Your task to perform on an android device: toggle notification dots Image 0: 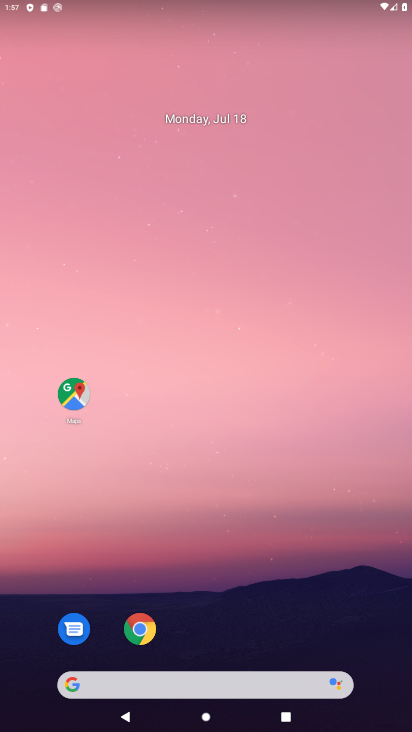
Step 0: drag from (256, 643) to (256, 254)
Your task to perform on an android device: toggle notification dots Image 1: 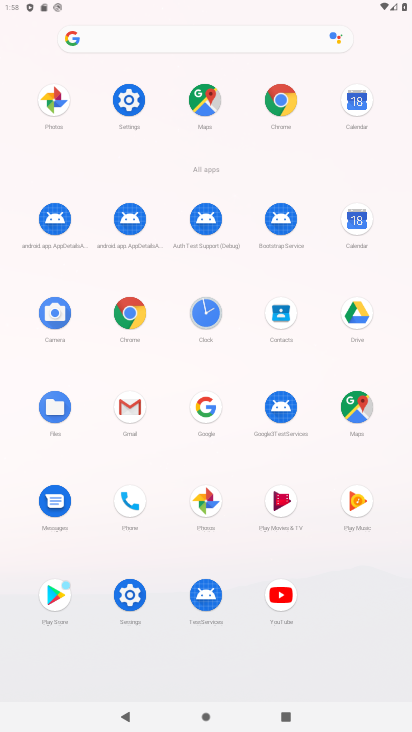
Step 1: click (140, 97)
Your task to perform on an android device: toggle notification dots Image 2: 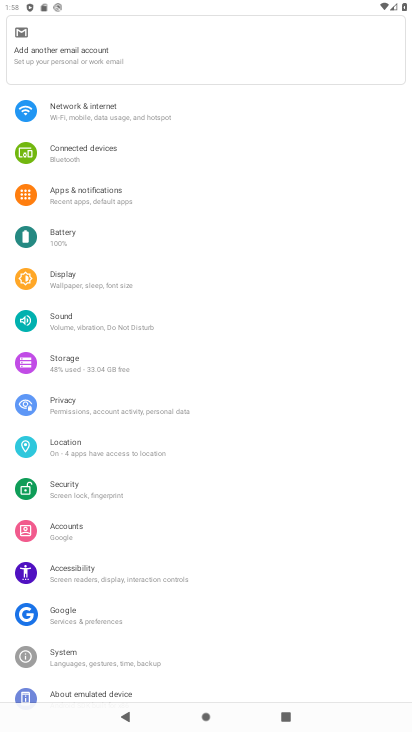
Step 2: click (157, 203)
Your task to perform on an android device: toggle notification dots Image 3: 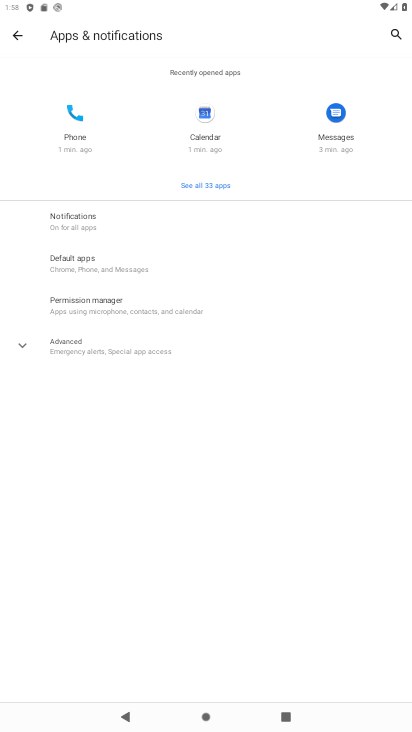
Step 3: click (88, 234)
Your task to perform on an android device: toggle notification dots Image 4: 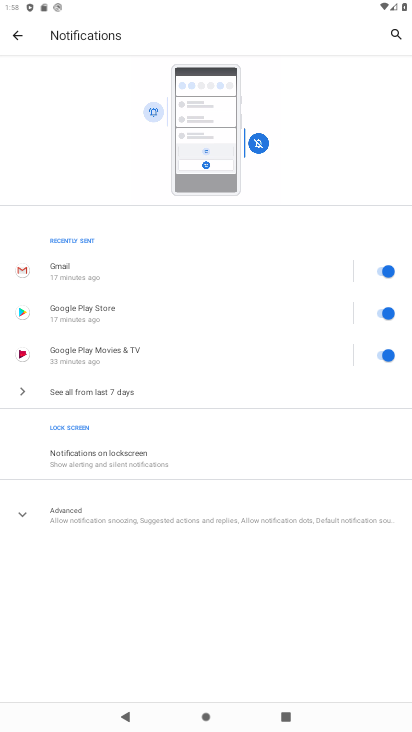
Step 4: click (98, 523)
Your task to perform on an android device: toggle notification dots Image 5: 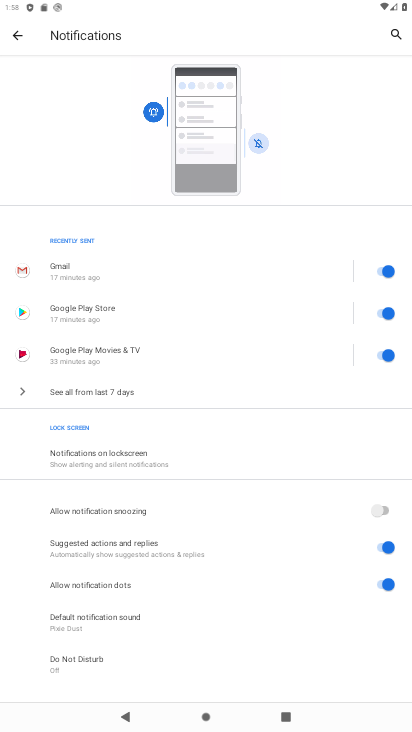
Step 5: drag from (235, 572) to (263, 358)
Your task to perform on an android device: toggle notification dots Image 6: 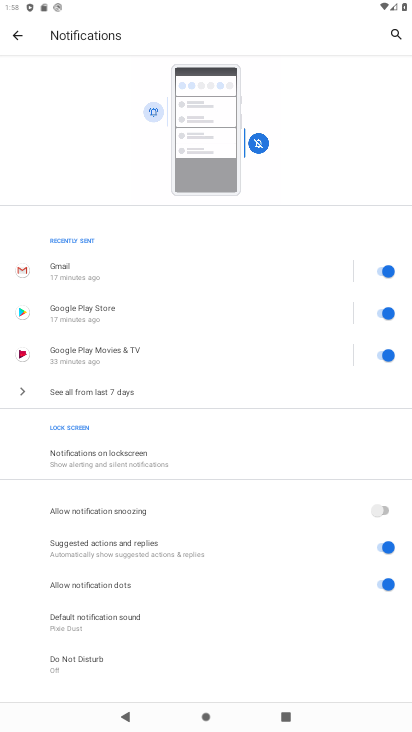
Step 6: click (378, 587)
Your task to perform on an android device: toggle notification dots Image 7: 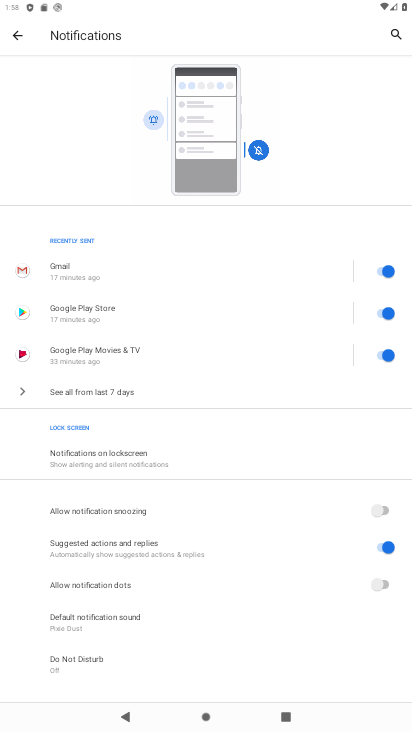
Step 7: task complete